Your task to perform on an android device: turn off priority inbox in the gmail app Image 0: 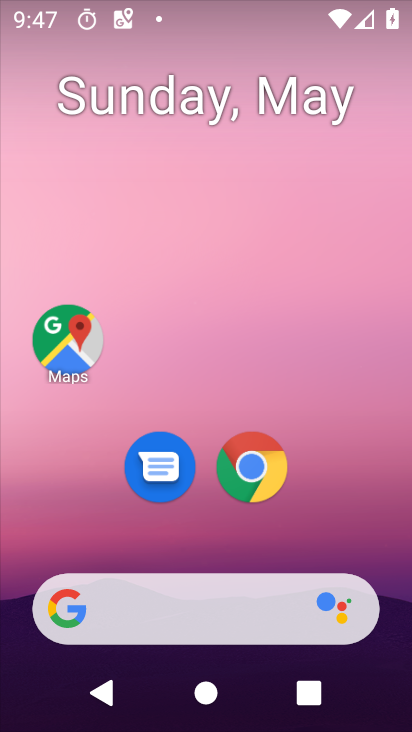
Step 0: drag from (189, 545) to (168, 199)
Your task to perform on an android device: turn off priority inbox in the gmail app Image 1: 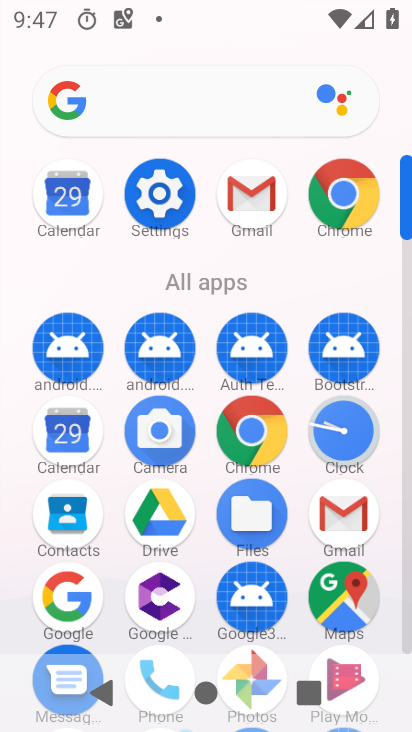
Step 1: click (237, 203)
Your task to perform on an android device: turn off priority inbox in the gmail app Image 2: 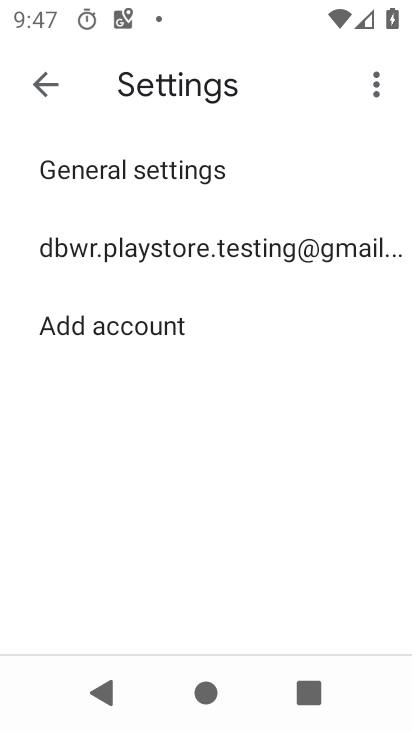
Step 2: click (36, 87)
Your task to perform on an android device: turn off priority inbox in the gmail app Image 3: 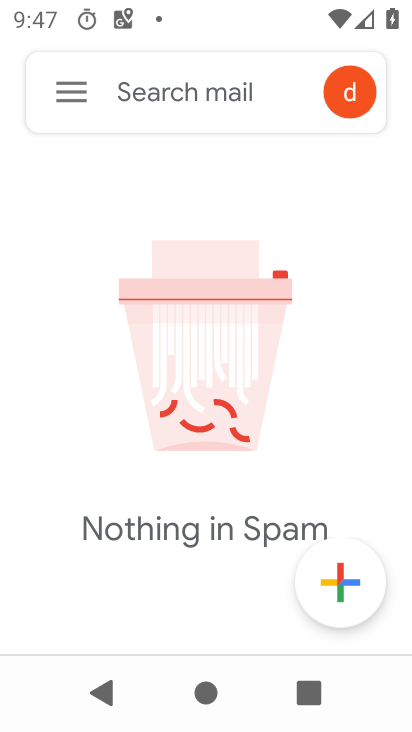
Step 3: click (55, 98)
Your task to perform on an android device: turn off priority inbox in the gmail app Image 4: 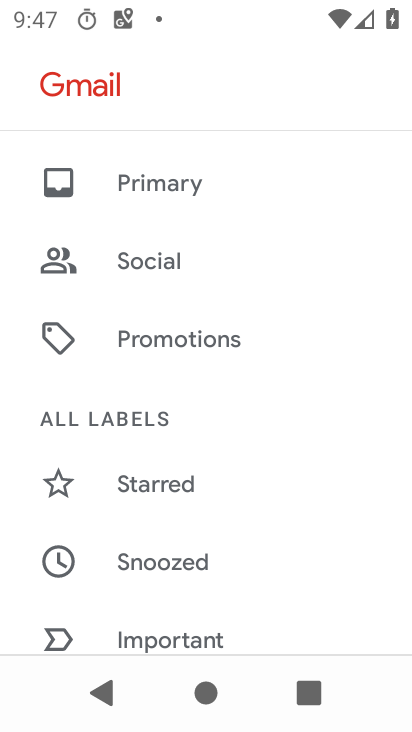
Step 4: drag from (179, 572) to (201, 244)
Your task to perform on an android device: turn off priority inbox in the gmail app Image 5: 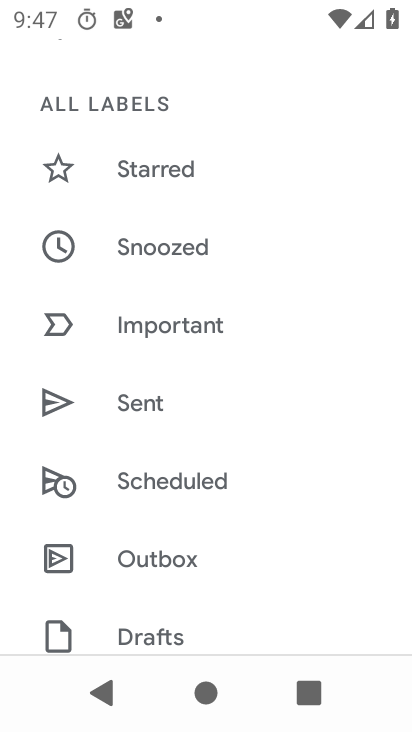
Step 5: drag from (206, 565) to (222, 238)
Your task to perform on an android device: turn off priority inbox in the gmail app Image 6: 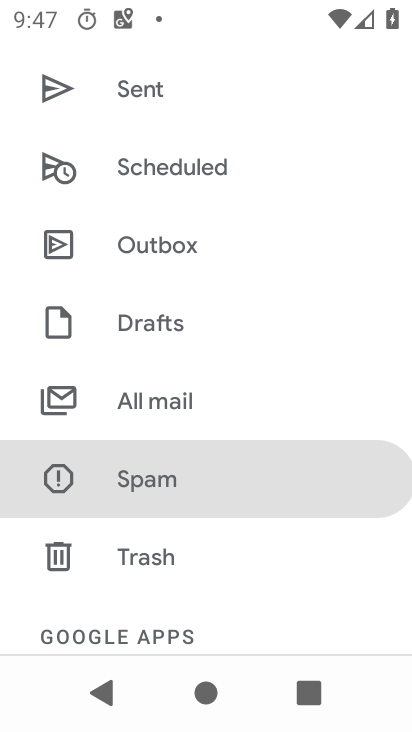
Step 6: drag from (198, 560) to (202, 245)
Your task to perform on an android device: turn off priority inbox in the gmail app Image 7: 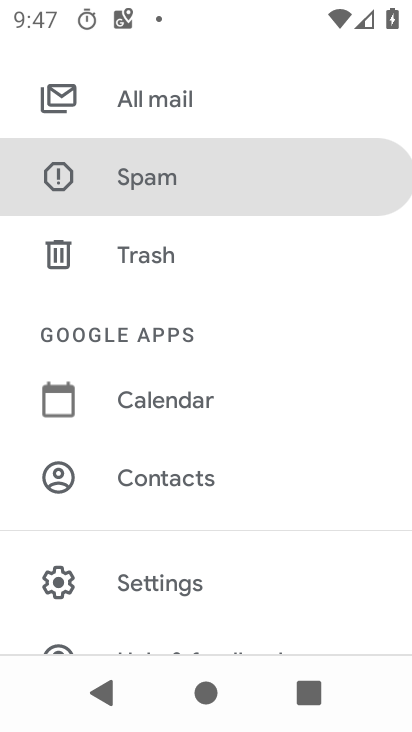
Step 7: drag from (183, 555) to (218, 332)
Your task to perform on an android device: turn off priority inbox in the gmail app Image 8: 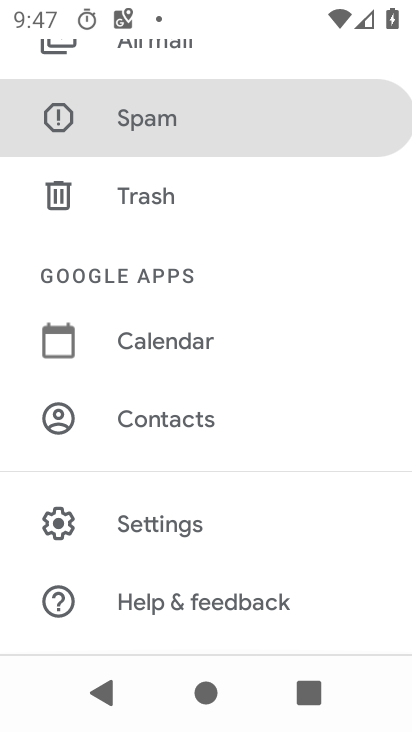
Step 8: click (188, 521)
Your task to perform on an android device: turn off priority inbox in the gmail app Image 9: 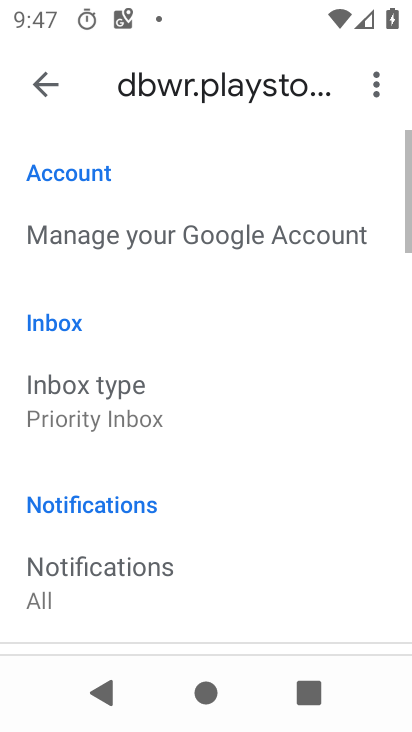
Step 9: drag from (188, 528) to (190, 396)
Your task to perform on an android device: turn off priority inbox in the gmail app Image 10: 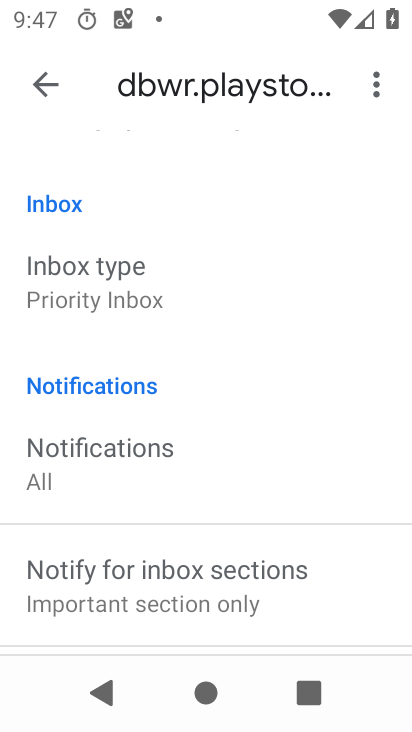
Step 10: click (141, 299)
Your task to perform on an android device: turn off priority inbox in the gmail app Image 11: 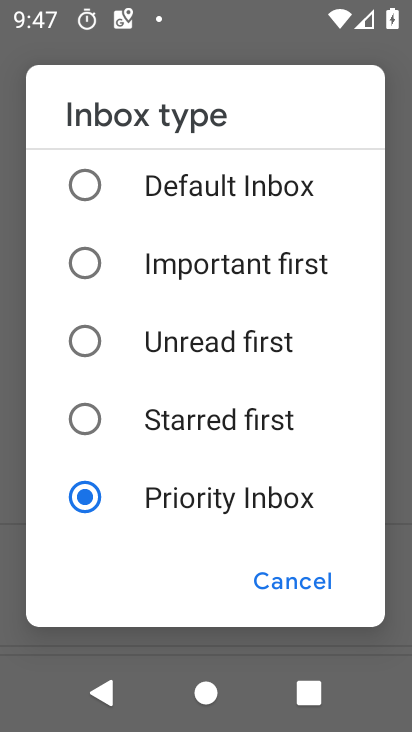
Step 11: click (147, 189)
Your task to perform on an android device: turn off priority inbox in the gmail app Image 12: 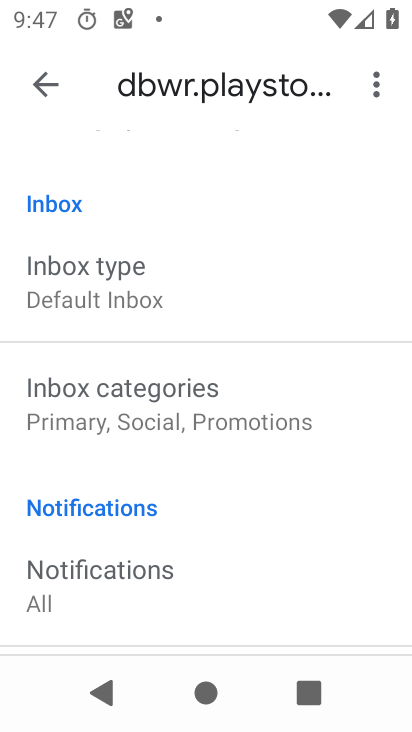
Step 12: task complete